Your task to perform on an android device: Open eBay Image 0: 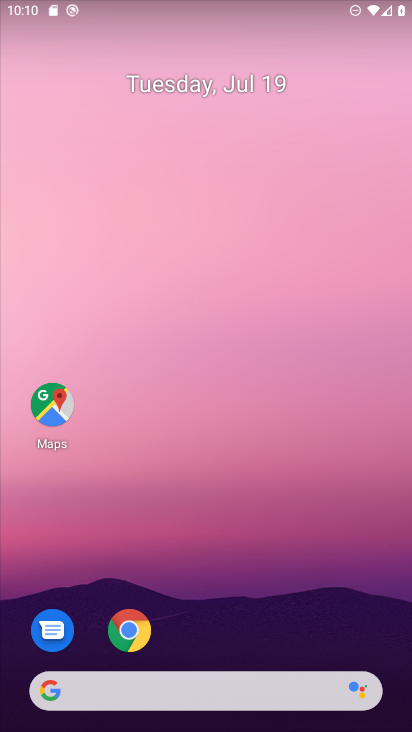
Step 0: click (93, 679)
Your task to perform on an android device: Open eBay Image 1: 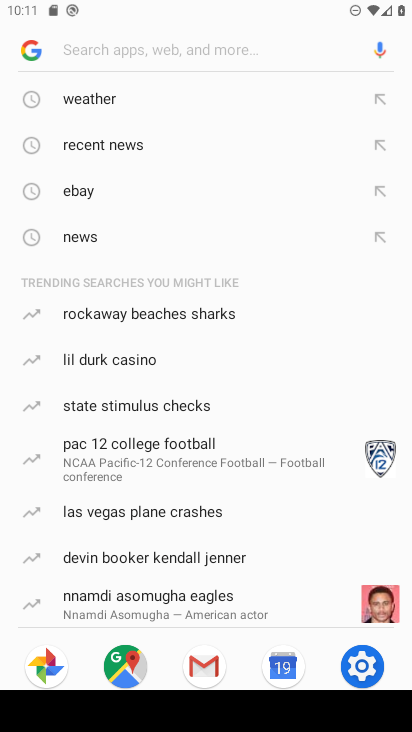
Step 1: click (82, 198)
Your task to perform on an android device: Open eBay Image 2: 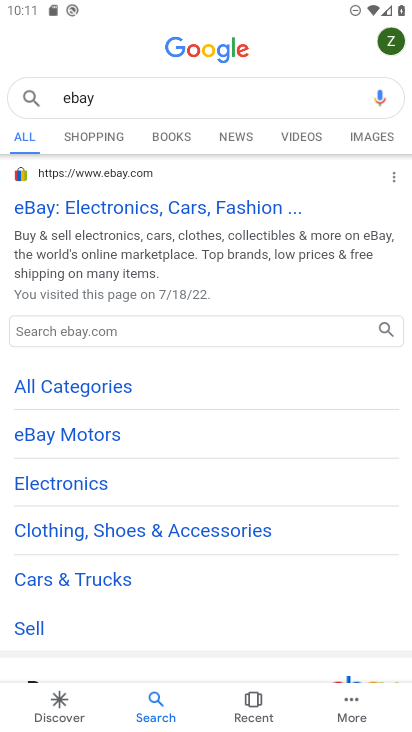
Step 2: task complete